Your task to perform on an android device: turn off translation in the chrome app Image 0: 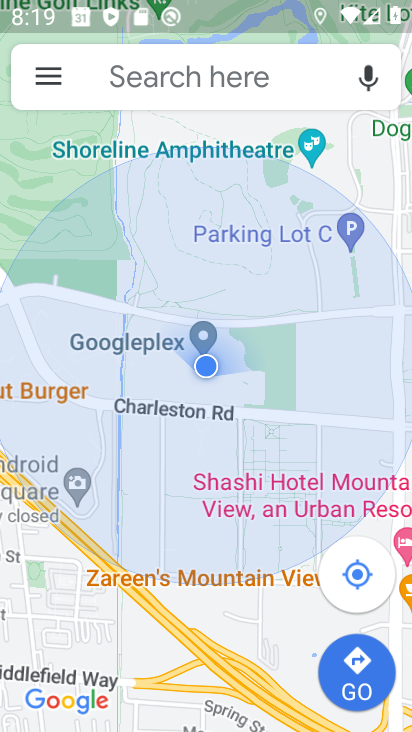
Step 0: press home button
Your task to perform on an android device: turn off translation in the chrome app Image 1: 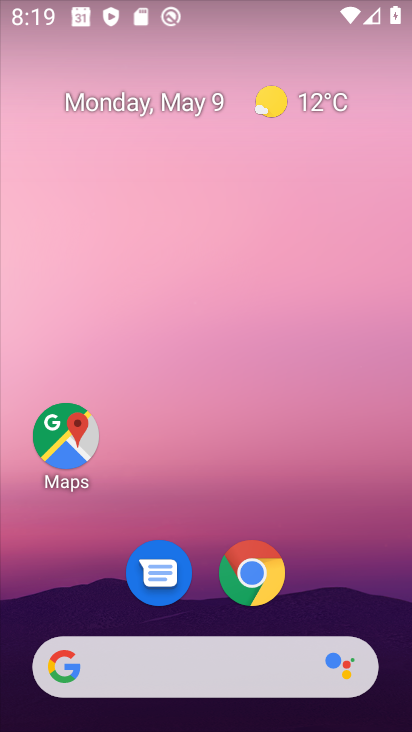
Step 1: click (245, 588)
Your task to perform on an android device: turn off translation in the chrome app Image 2: 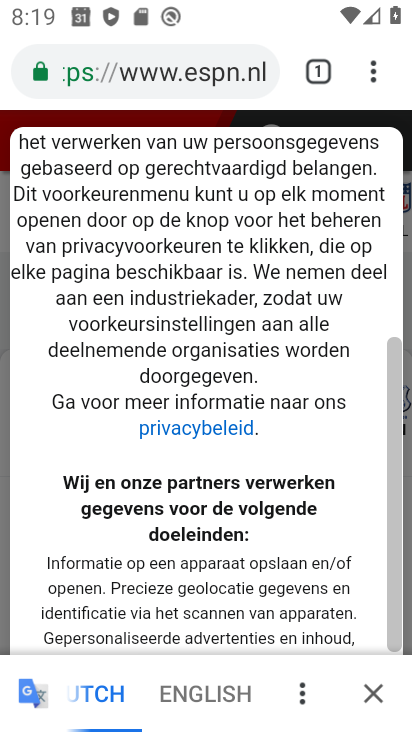
Step 2: click (378, 76)
Your task to perform on an android device: turn off translation in the chrome app Image 3: 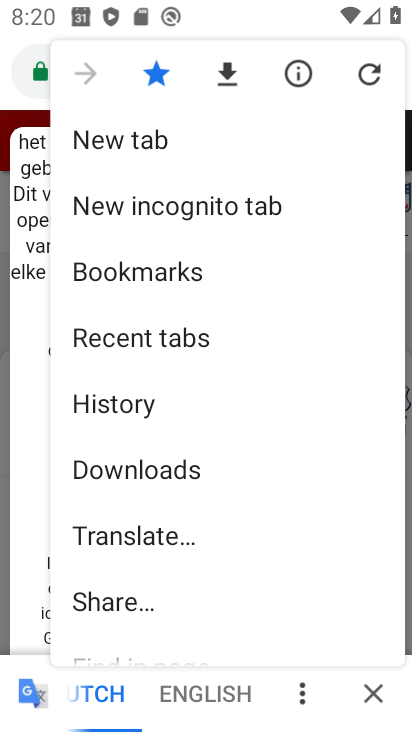
Step 3: click (236, 534)
Your task to perform on an android device: turn off translation in the chrome app Image 4: 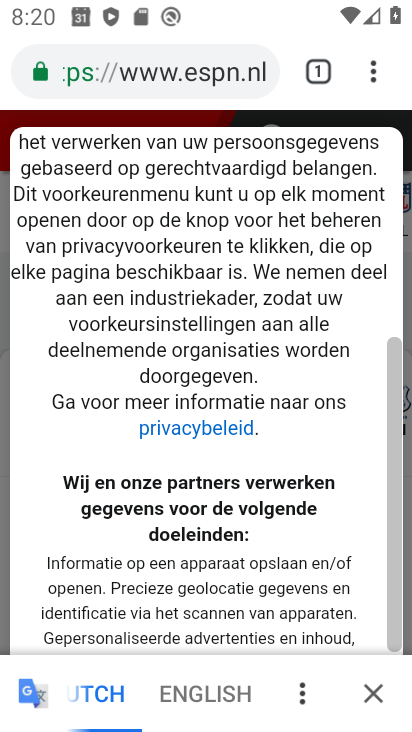
Step 4: click (304, 692)
Your task to perform on an android device: turn off translation in the chrome app Image 5: 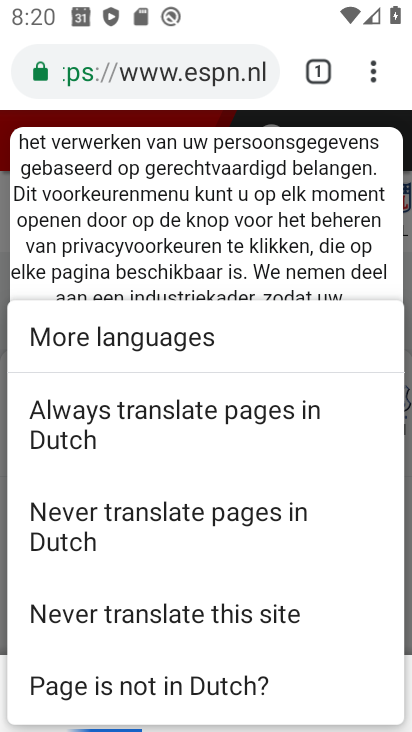
Step 5: click (205, 611)
Your task to perform on an android device: turn off translation in the chrome app Image 6: 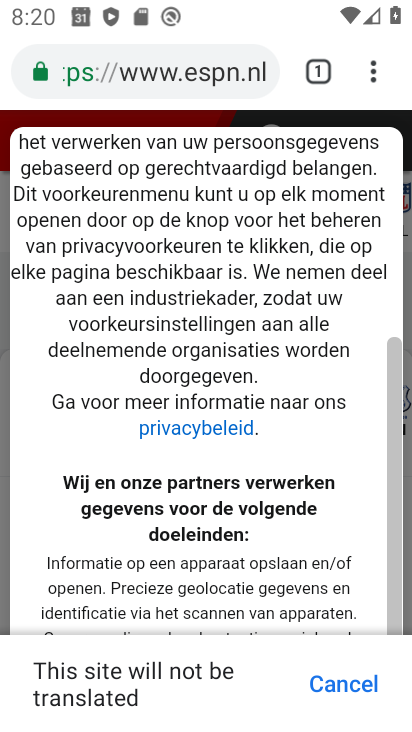
Step 6: task complete